Your task to perform on an android device: Open Reddit.com Image 0: 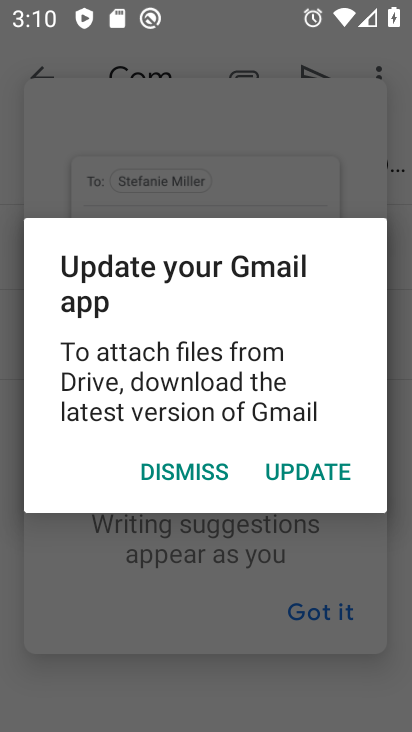
Step 0: press home button
Your task to perform on an android device: Open Reddit.com Image 1: 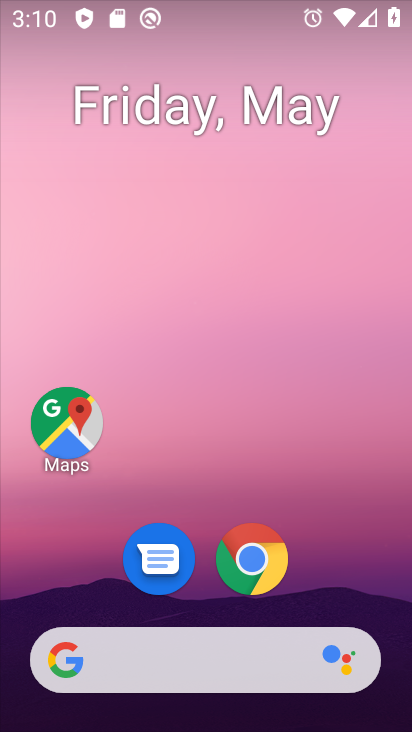
Step 1: click (193, 664)
Your task to perform on an android device: Open Reddit.com Image 2: 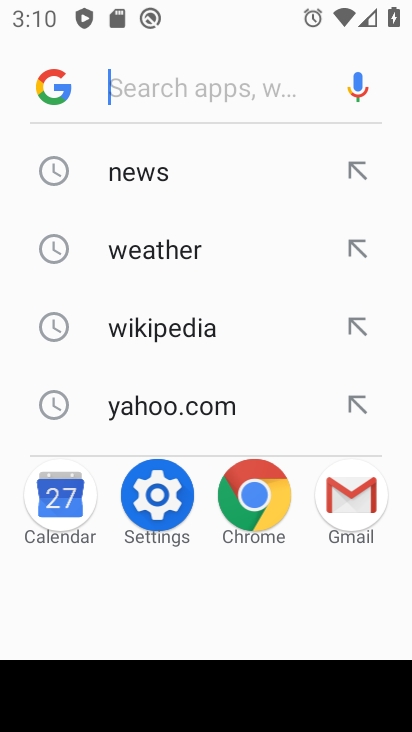
Step 2: type "reddit.com"
Your task to perform on an android device: Open Reddit.com Image 3: 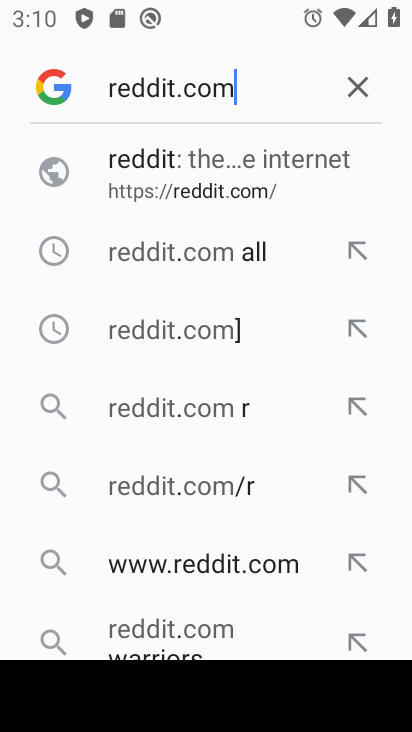
Step 3: click (165, 157)
Your task to perform on an android device: Open Reddit.com Image 4: 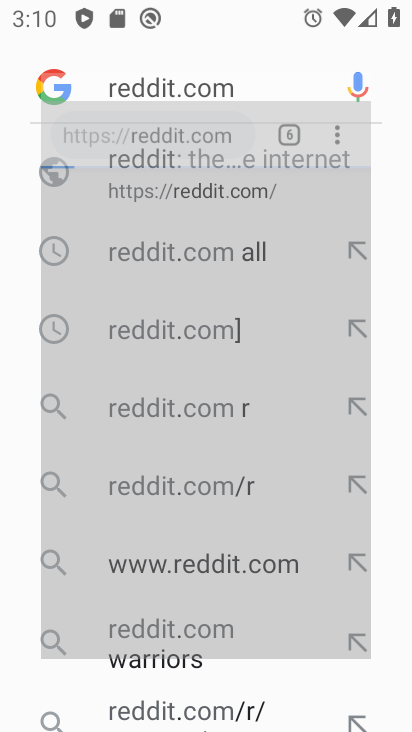
Step 4: task complete